Your task to perform on an android device: Search for vegetarian restaurants on Maps Image 0: 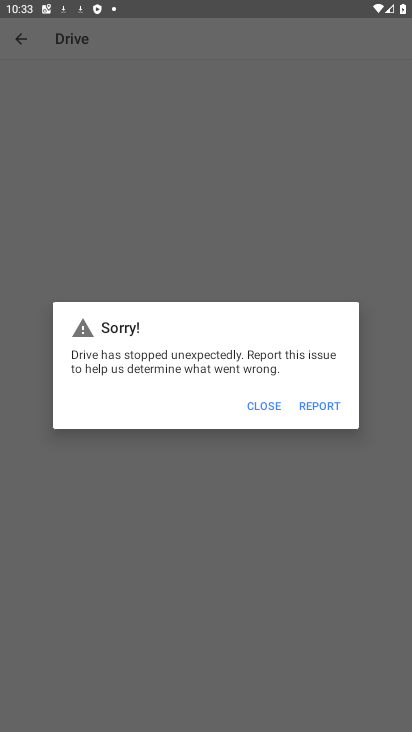
Step 0: press home button
Your task to perform on an android device: Search for vegetarian restaurants on Maps Image 1: 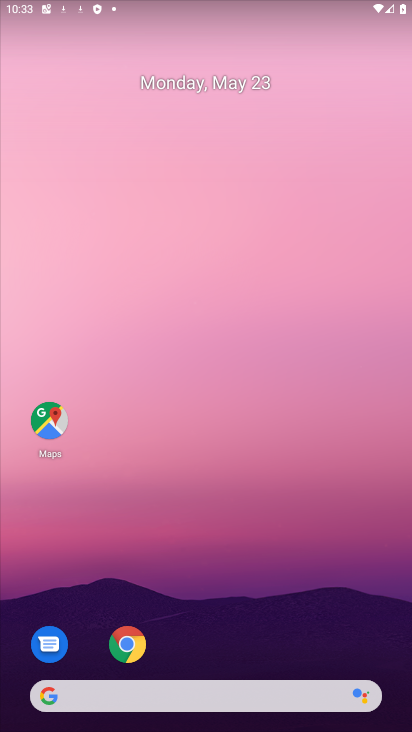
Step 1: drag from (278, 718) to (274, 169)
Your task to perform on an android device: Search for vegetarian restaurants on Maps Image 2: 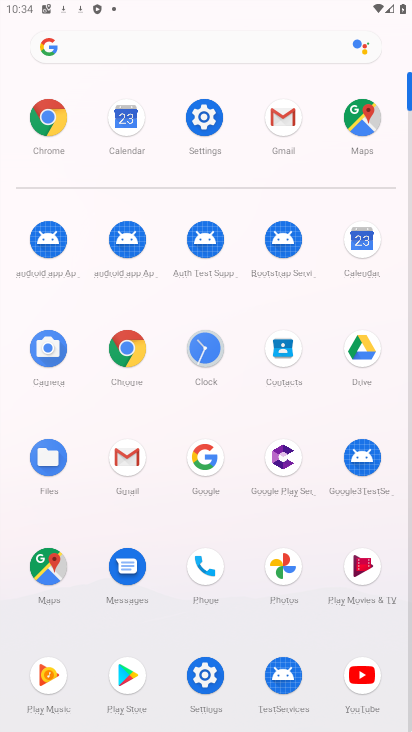
Step 2: click (365, 127)
Your task to perform on an android device: Search for vegetarian restaurants on Maps Image 3: 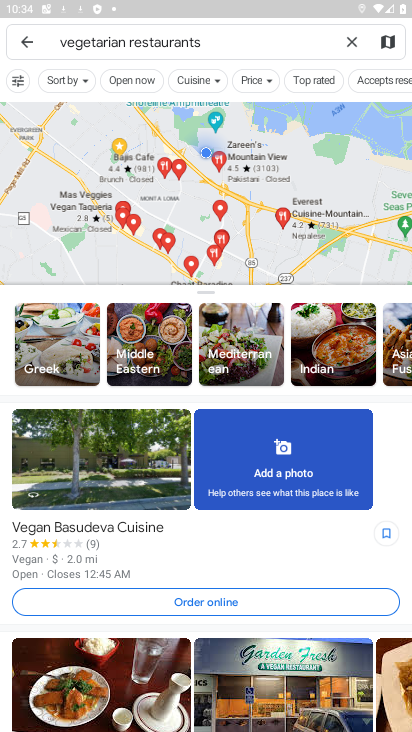
Step 3: task complete